Your task to perform on an android device: star an email in the gmail app Image 0: 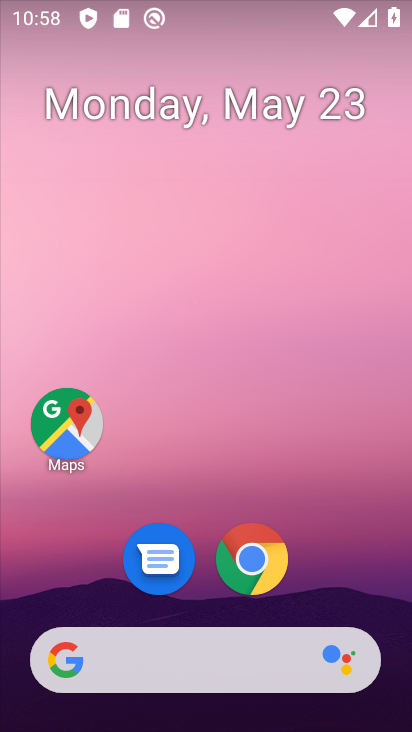
Step 0: drag from (68, 612) to (187, 112)
Your task to perform on an android device: star an email in the gmail app Image 1: 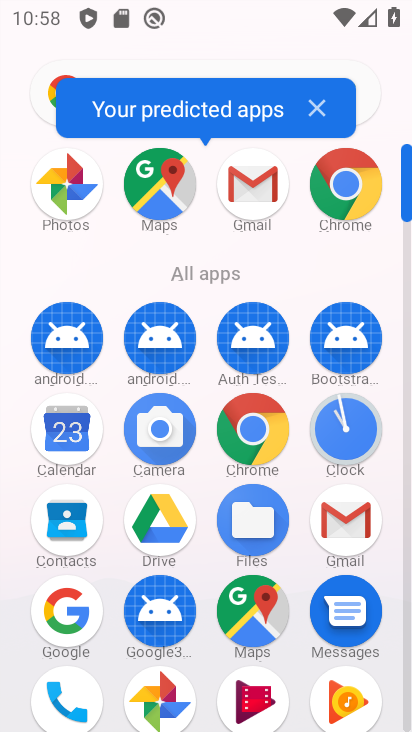
Step 1: drag from (127, 578) to (219, 231)
Your task to perform on an android device: star an email in the gmail app Image 2: 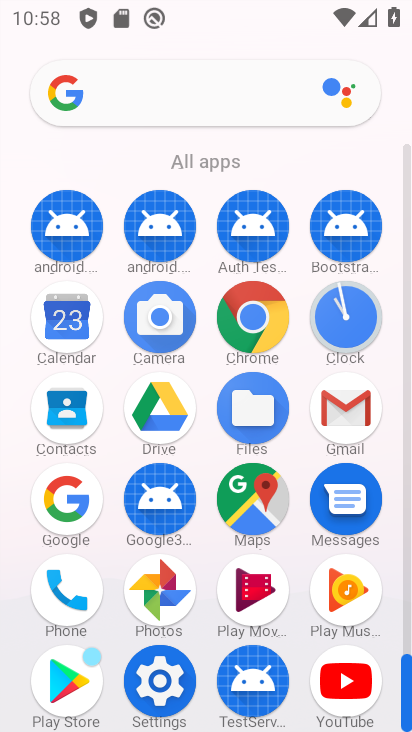
Step 2: click (353, 412)
Your task to perform on an android device: star an email in the gmail app Image 3: 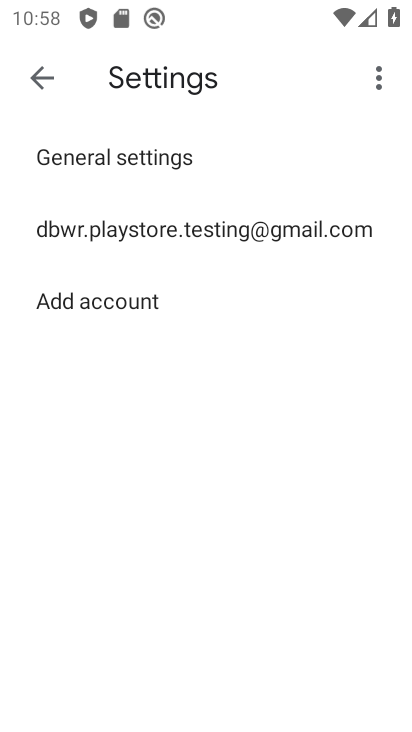
Step 3: click (27, 79)
Your task to perform on an android device: star an email in the gmail app Image 4: 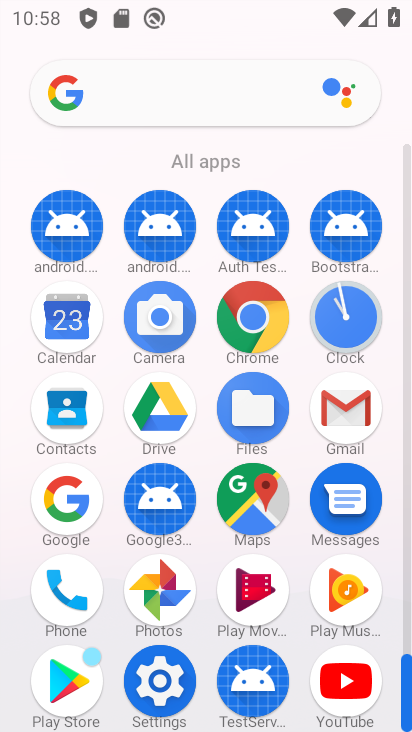
Step 4: click (330, 400)
Your task to perform on an android device: star an email in the gmail app Image 5: 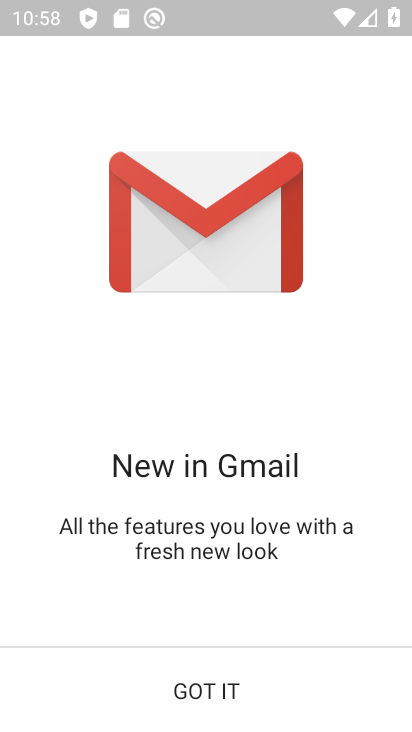
Step 5: click (302, 665)
Your task to perform on an android device: star an email in the gmail app Image 6: 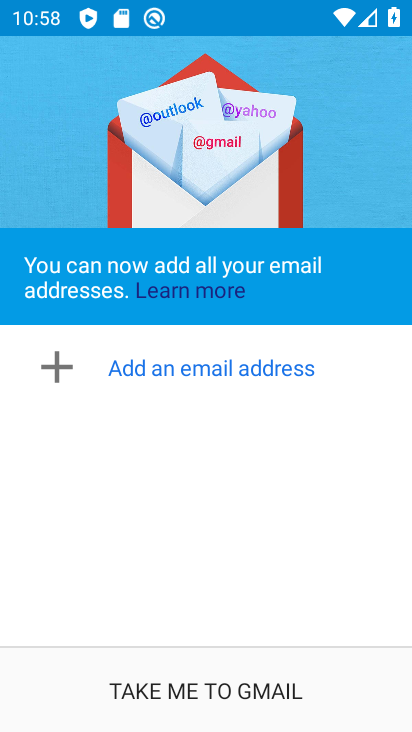
Step 6: click (301, 660)
Your task to perform on an android device: star an email in the gmail app Image 7: 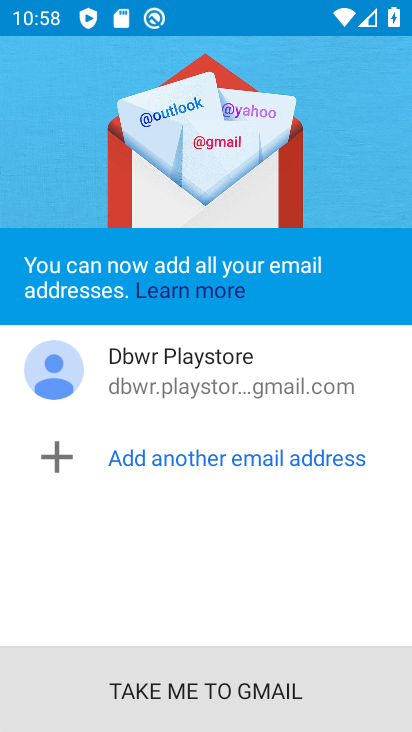
Step 7: click (300, 695)
Your task to perform on an android device: star an email in the gmail app Image 8: 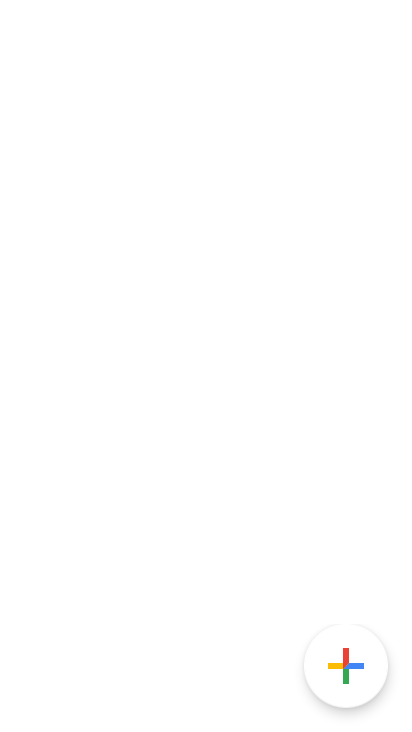
Step 8: click (300, 686)
Your task to perform on an android device: star an email in the gmail app Image 9: 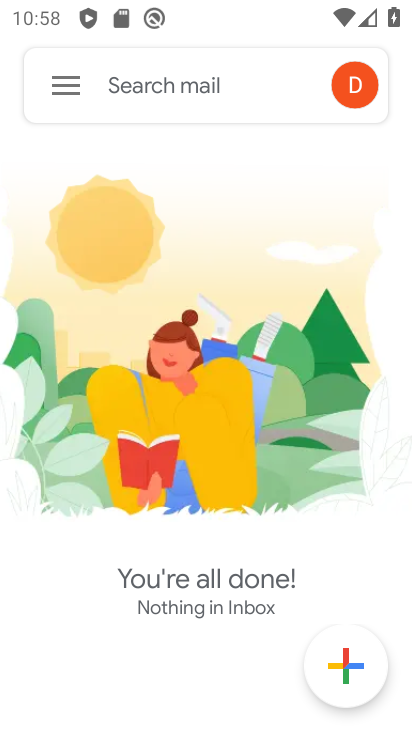
Step 9: click (65, 95)
Your task to perform on an android device: star an email in the gmail app Image 10: 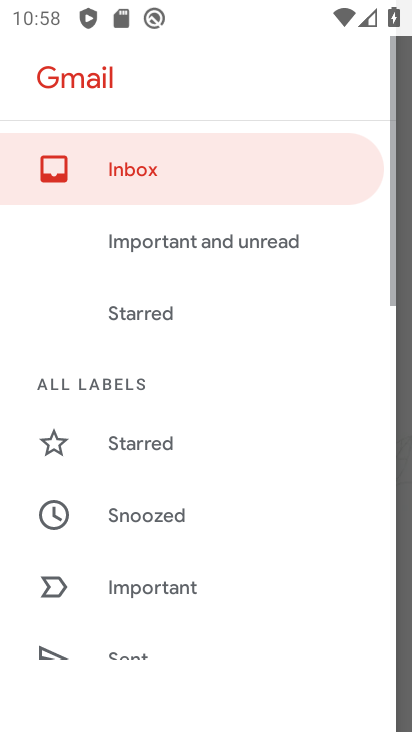
Step 10: drag from (160, 529) to (268, 112)
Your task to perform on an android device: star an email in the gmail app Image 11: 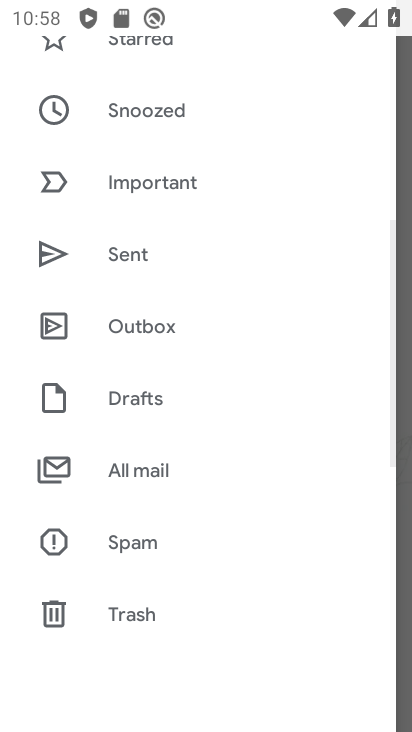
Step 11: click (224, 461)
Your task to perform on an android device: star an email in the gmail app Image 12: 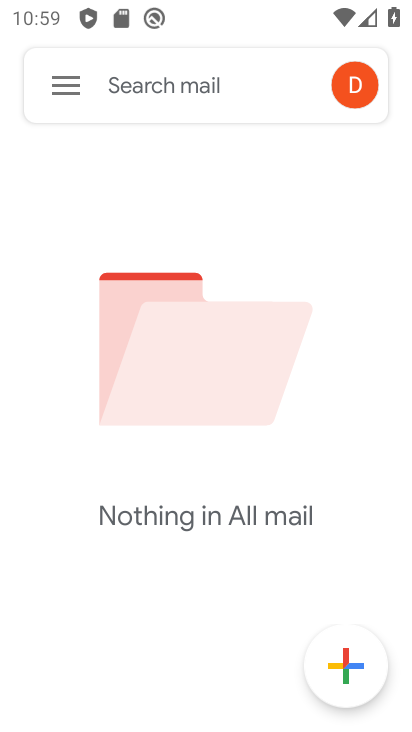
Step 12: task complete